Your task to perform on an android device: What is the recent news? Image 0: 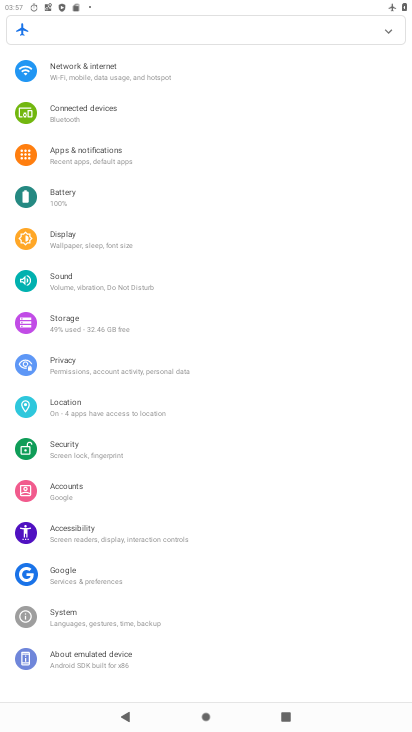
Step 0: press home button
Your task to perform on an android device: What is the recent news? Image 1: 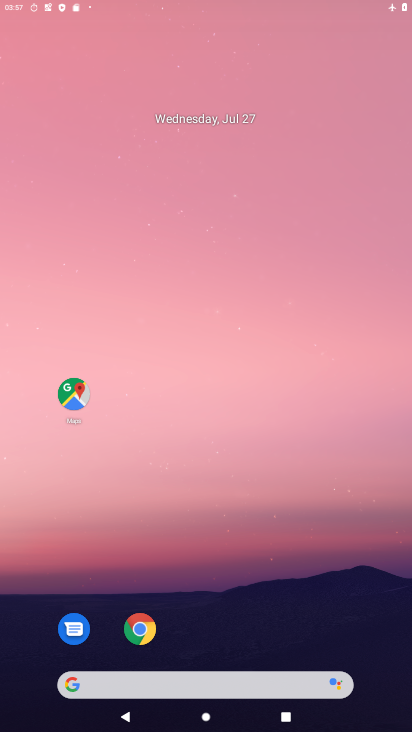
Step 1: drag from (254, 577) to (221, 57)
Your task to perform on an android device: What is the recent news? Image 2: 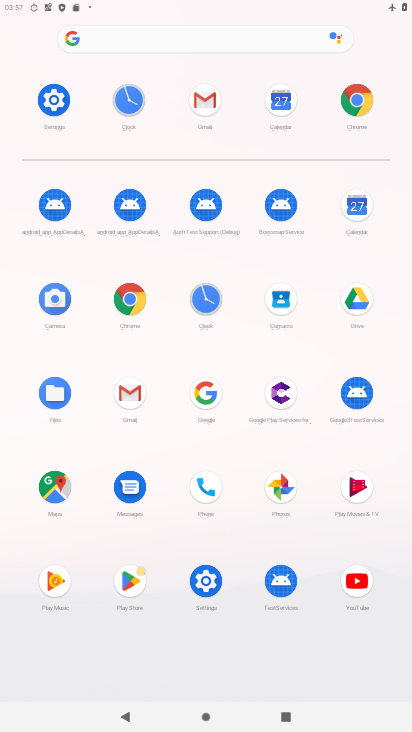
Step 2: click (130, 300)
Your task to perform on an android device: What is the recent news? Image 3: 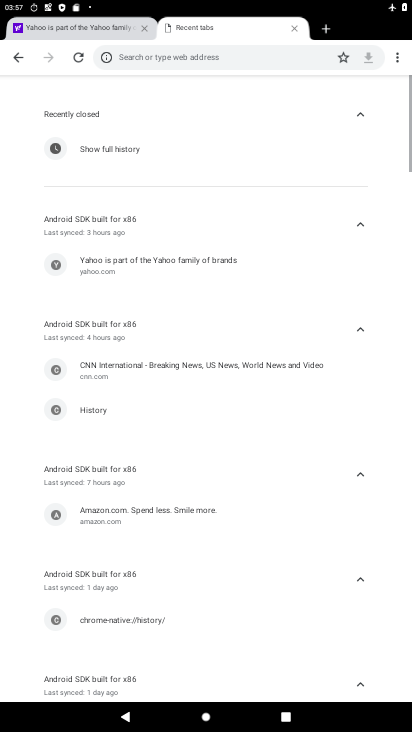
Step 3: click (264, 55)
Your task to perform on an android device: What is the recent news? Image 4: 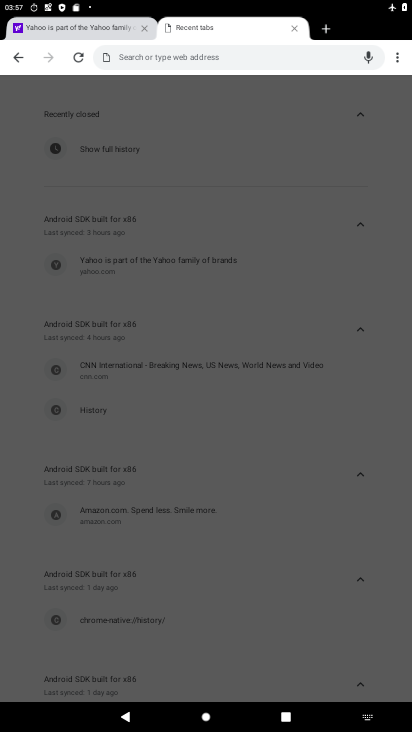
Step 4: type "news"
Your task to perform on an android device: What is the recent news? Image 5: 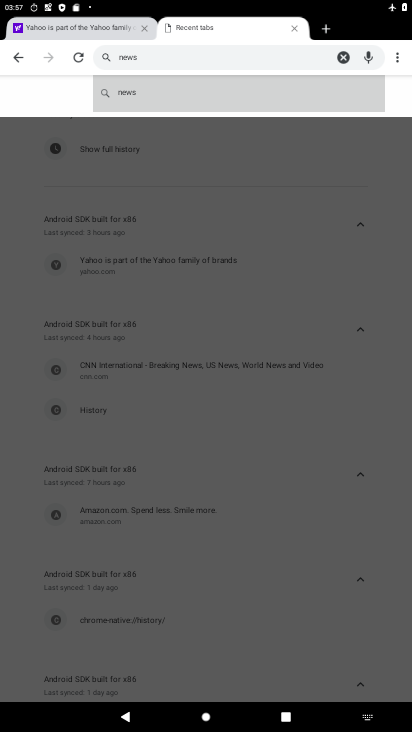
Step 5: click (120, 100)
Your task to perform on an android device: What is the recent news? Image 6: 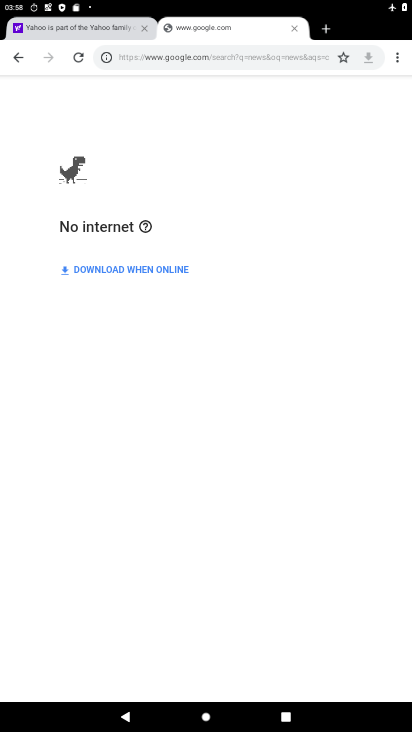
Step 6: task complete